Your task to perform on an android device: Find coffee shops on Maps Image 0: 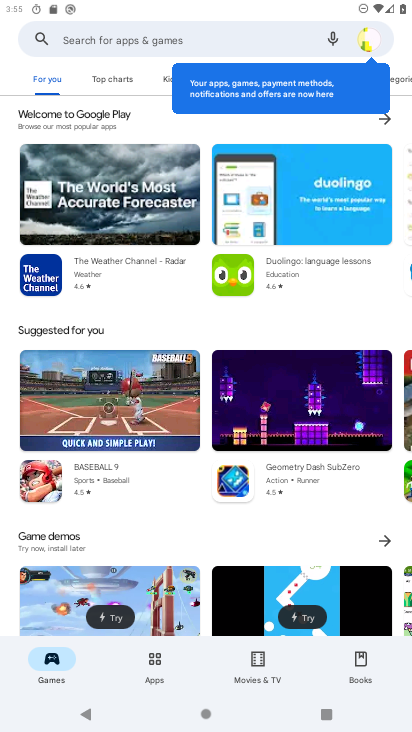
Step 0: press home button
Your task to perform on an android device: Find coffee shops on Maps Image 1: 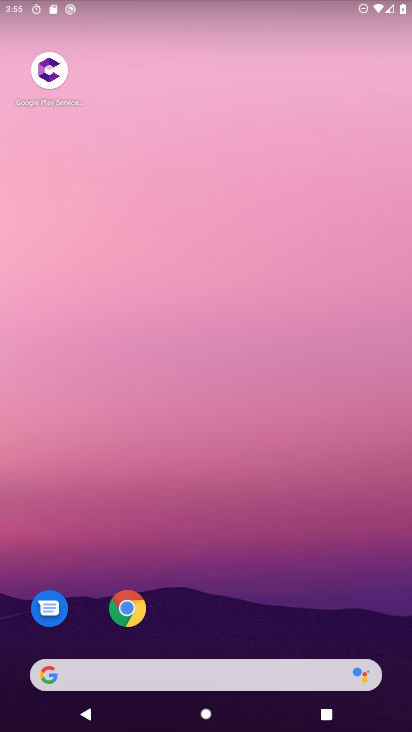
Step 1: drag from (216, 506) to (227, 131)
Your task to perform on an android device: Find coffee shops on Maps Image 2: 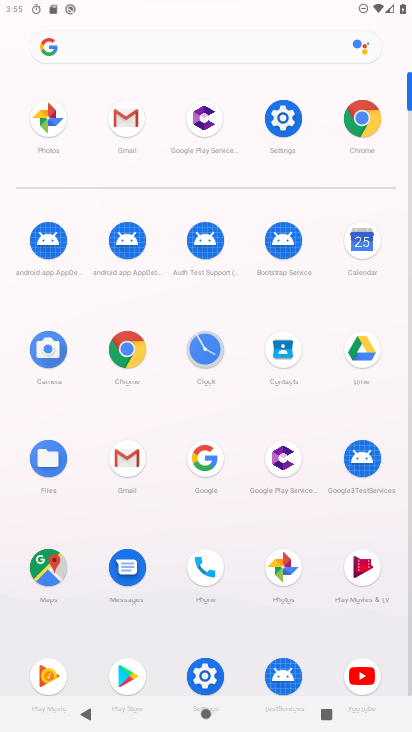
Step 2: click (42, 569)
Your task to perform on an android device: Find coffee shops on Maps Image 3: 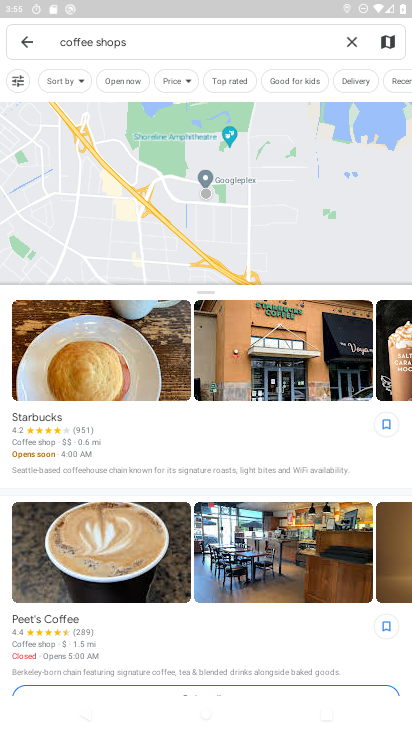
Step 3: task complete